Your task to perform on an android device: make emails show in primary in the gmail app Image 0: 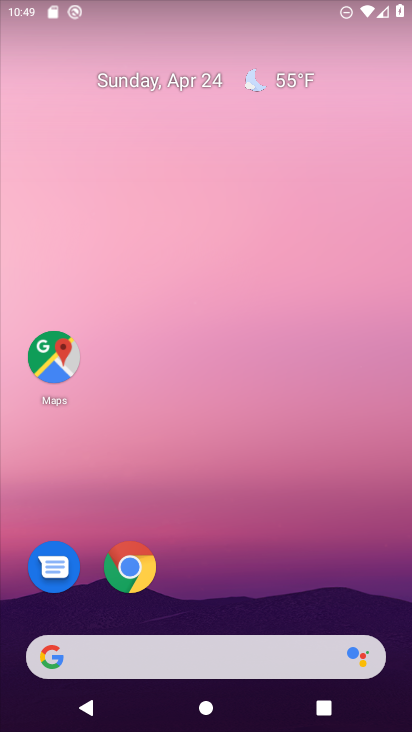
Step 0: drag from (392, 647) to (411, 547)
Your task to perform on an android device: make emails show in primary in the gmail app Image 1: 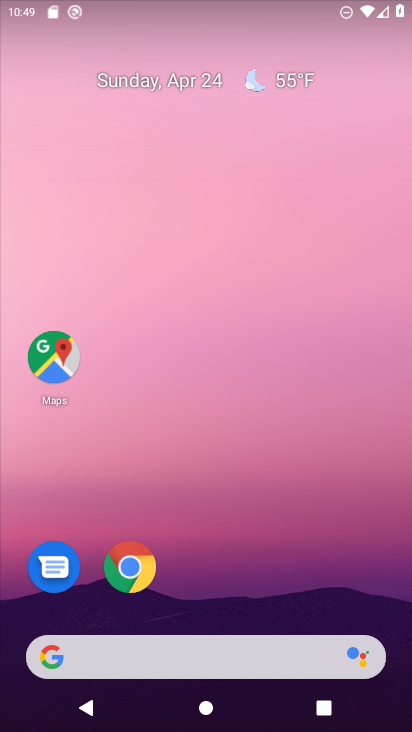
Step 1: drag from (329, 217) to (331, 123)
Your task to perform on an android device: make emails show in primary in the gmail app Image 2: 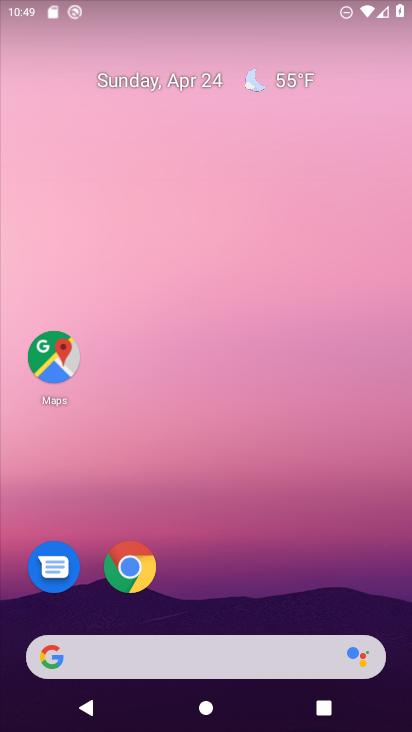
Step 2: drag from (362, 463) to (345, 146)
Your task to perform on an android device: make emails show in primary in the gmail app Image 3: 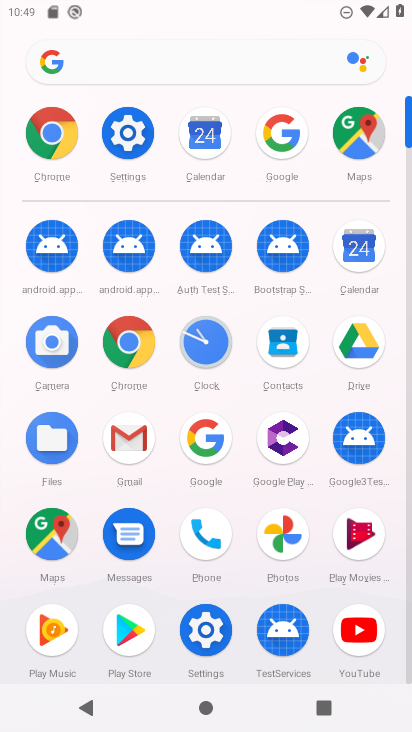
Step 3: click (134, 438)
Your task to perform on an android device: make emails show in primary in the gmail app Image 4: 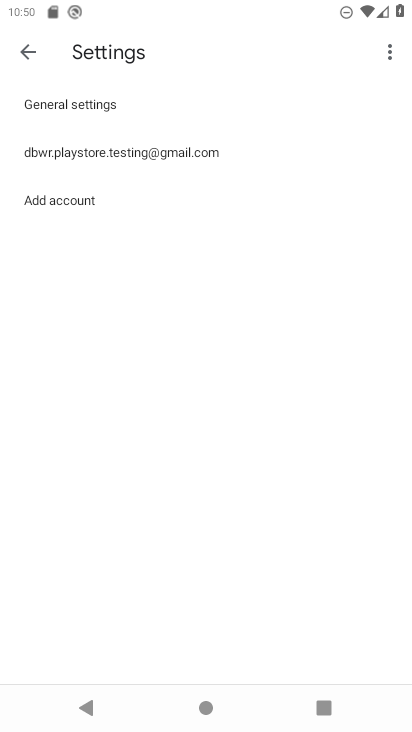
Step 4: click (78, 150)
Your task to perform on an android device: make emails show in primary in the gmail app Image 5: 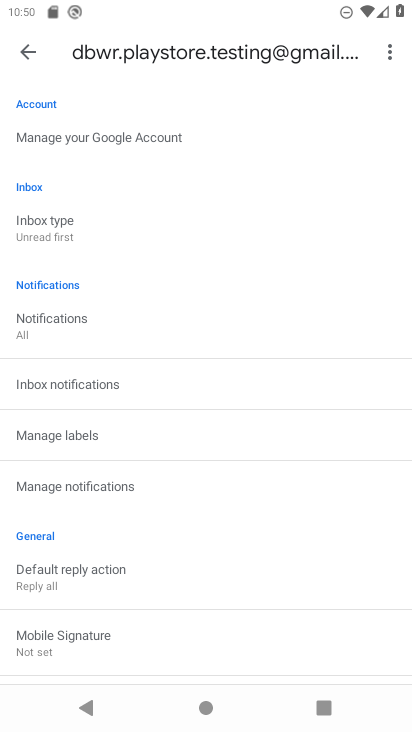
Step 5: click (45, 231)
Your task to perform on an android device: make emails show in primary in the gmail app Image 6: 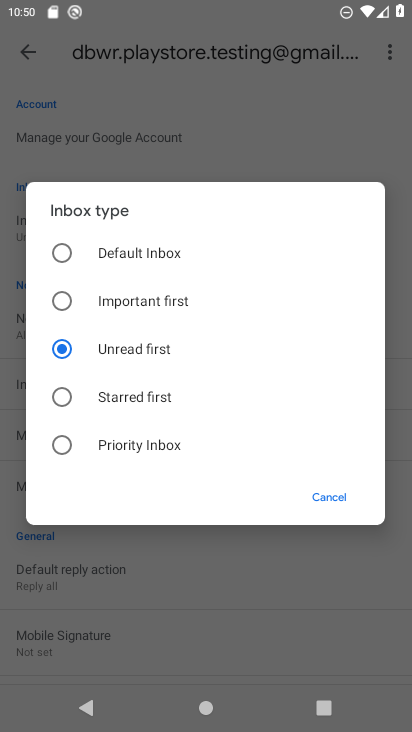
Step 6: click (60, 244)
Your task to perform on an android device: make emails show in primary in the gmail app Image 7: 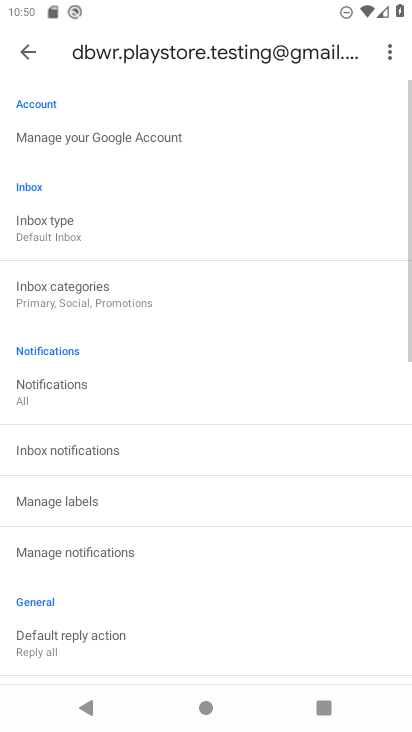
Step 7: click (56, 290)
Your task to perform on an android device: make emails show in primary in the gmail app Image 8: 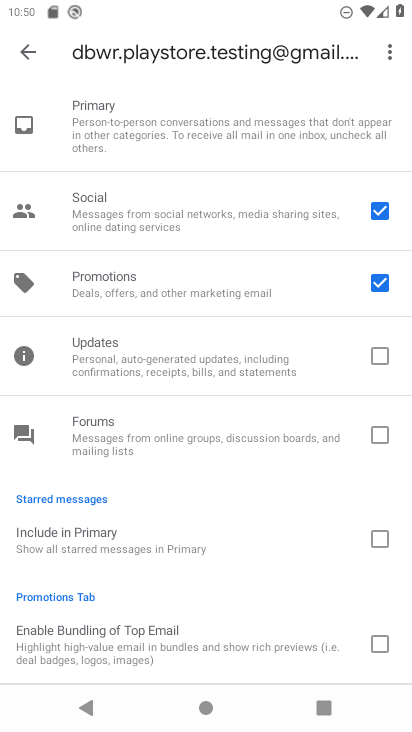
Step 8: click (363, 278)
Your task to perform on an android device: make emails show in primary in the gmail app Image 9: 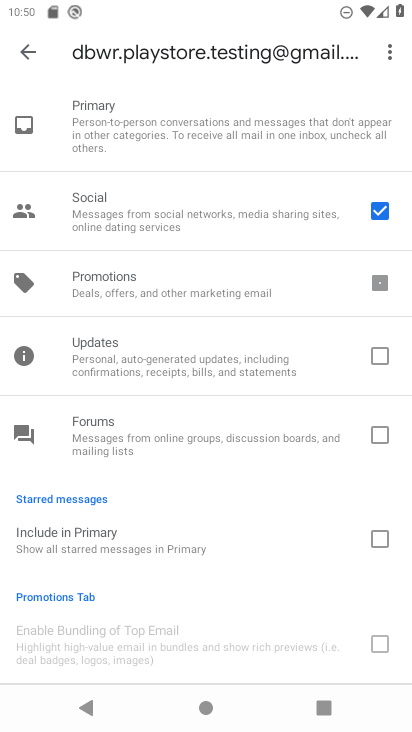
Step 9: click (376, 212)
Your task to perform on an android device: make emails show in primary in the gmail app Image 10: 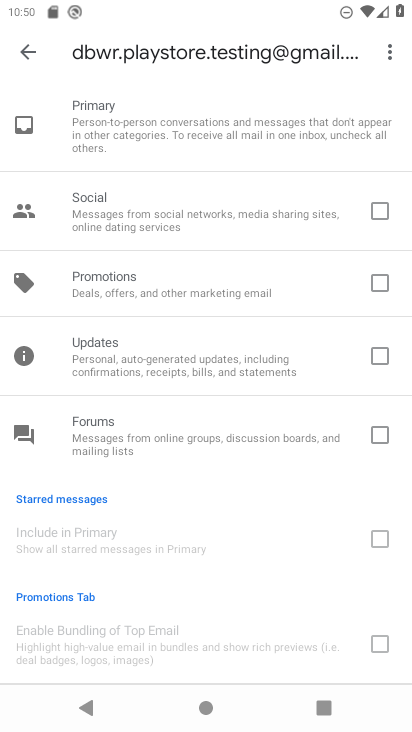
Step 10: click (33, 51)
Your task to perform on an android device: make emails show in primary in the gmail app Image 11: 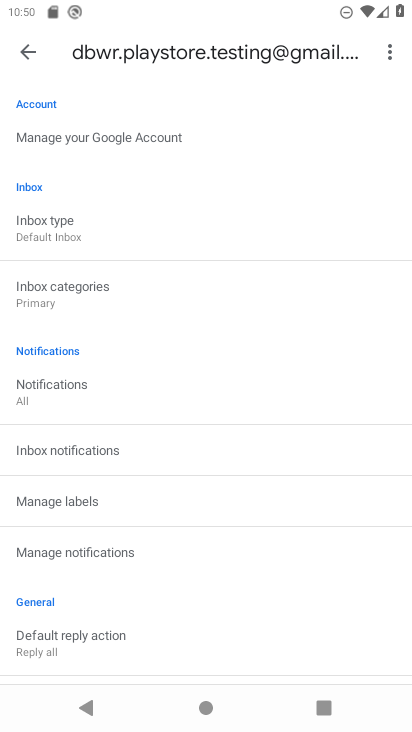
Step 11: task complete